Your task to perform on an android device: Show the shopping cart on costco. Image 0: 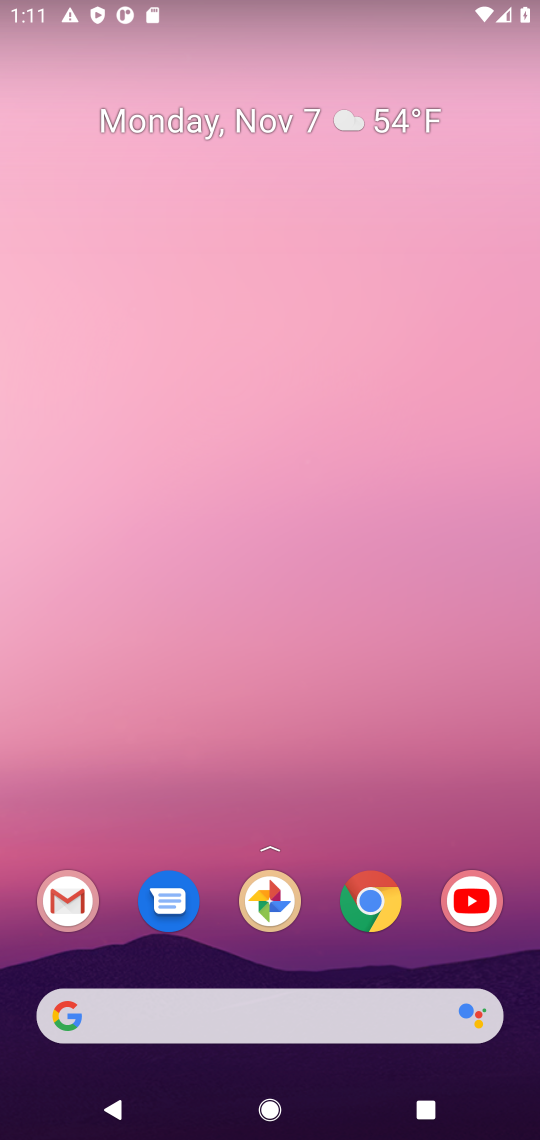
Step 0: click (368, 905)
Your task to perform on an android device: Show the shopping cart on costco. Image 1: 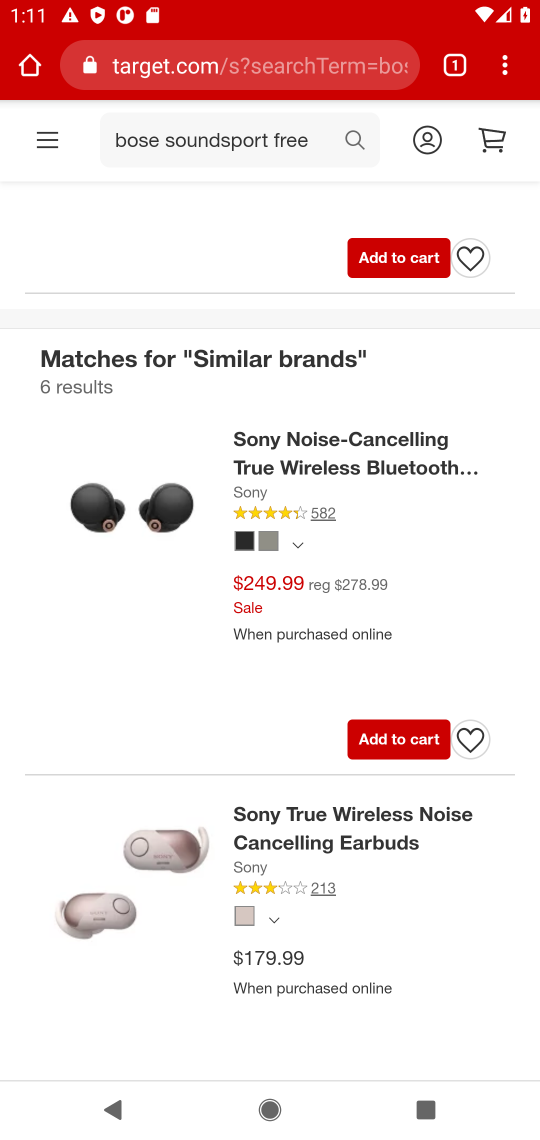
Step 1: click (268, 64)
Your task to perform on an android device: Show the shopping cart on costco. Image 2: 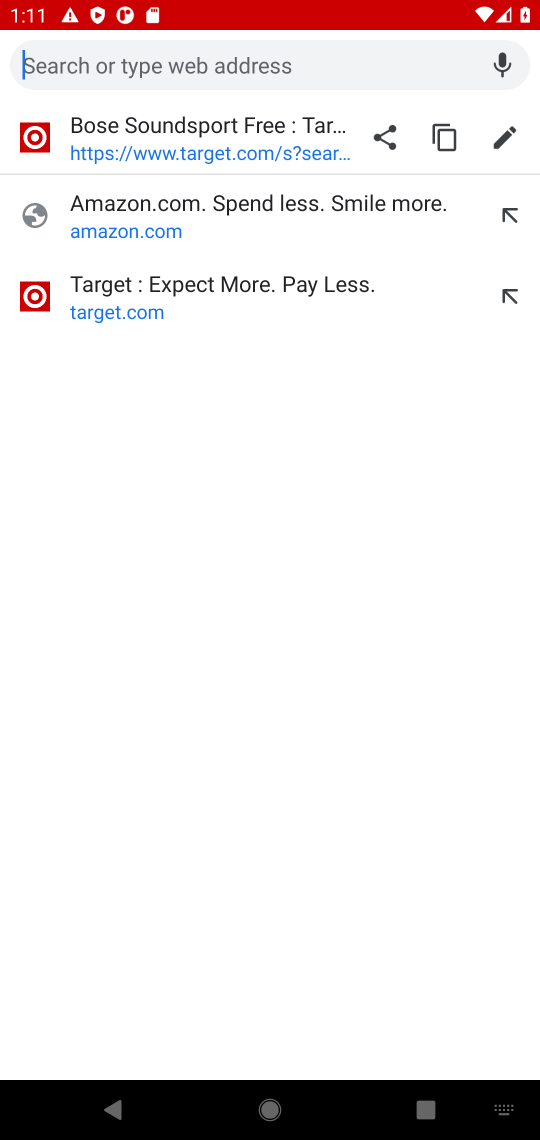
Step 2: type "costco.com"
Your task to perform on an android device: Show the shopping cart on costco. Image 3: 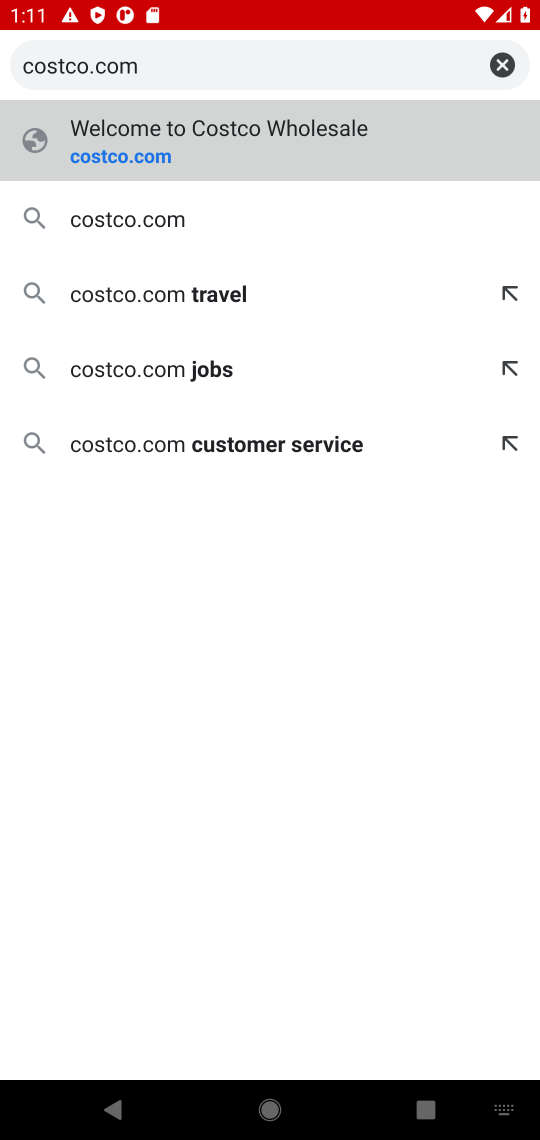
Step 3: click (99, 162)
Your task to perform on an android device: Show the shopping cart on costco. Image 4: 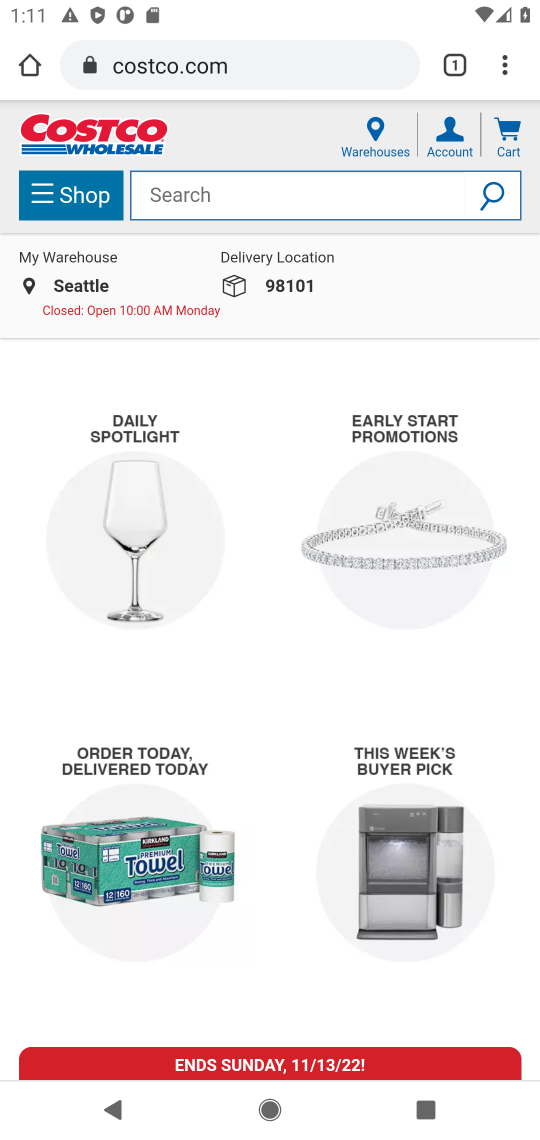
Step 4: click (509, 140)
Your task to perform on an android device: Show the shopping cart on costco. Image 5: 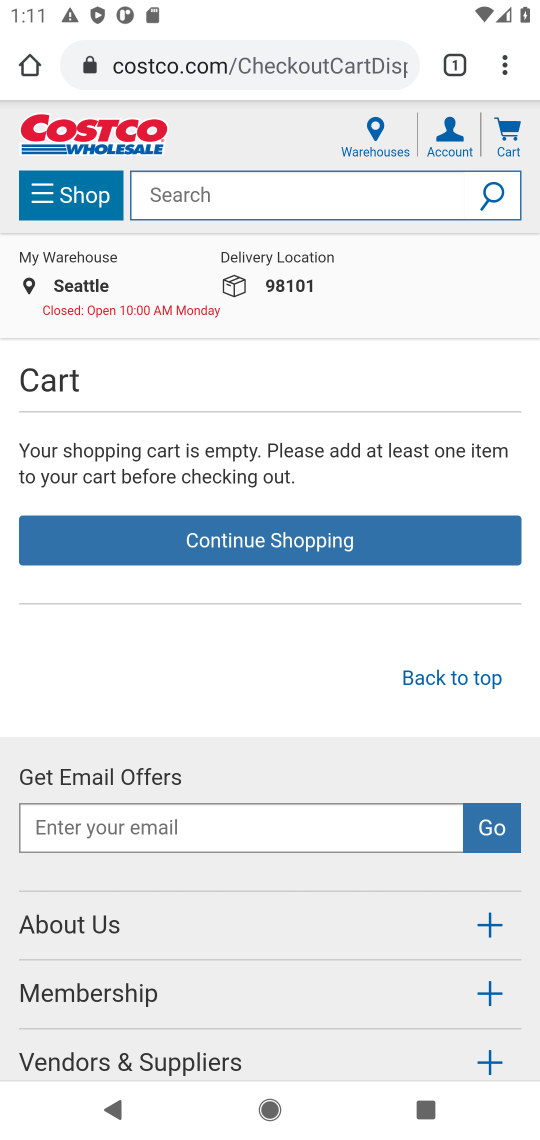
Step 5: task complete